Your task to perform on an android device: Do I have any events today? Image 0: 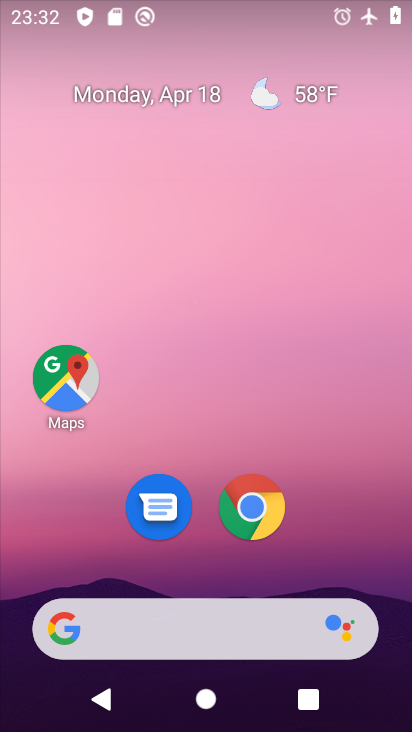
Step 0: click (169, 106)
Your task to perform on an android device: Do I have any events today? Image 1: 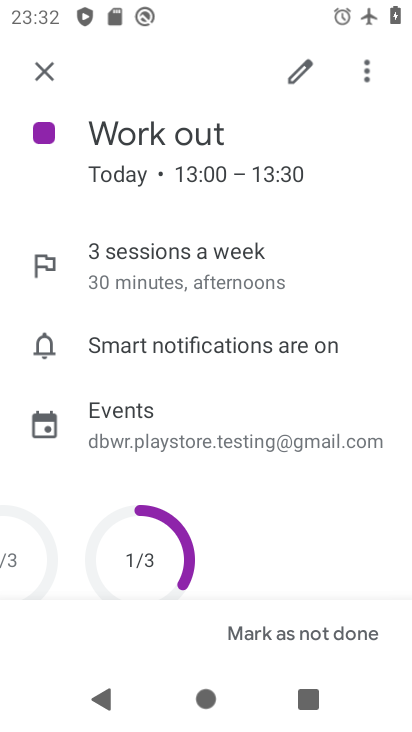
Step 1: click (62, 77)
Your task to perform on an android device: Do I have any events today? Image 2: 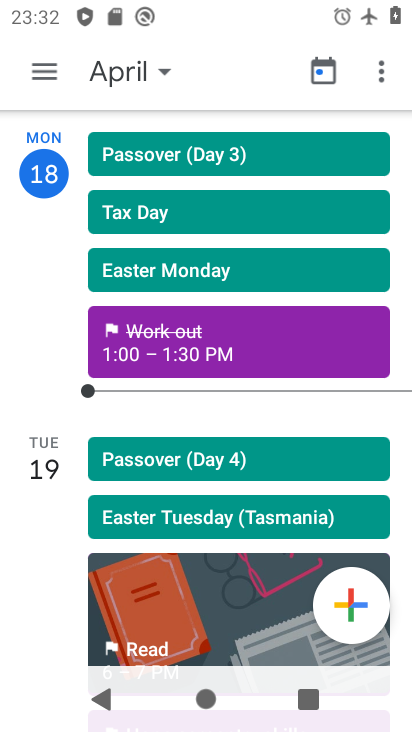
Step 2: click (64, 523)
Your task to perform on an android device: Do I have any events today? Image 3: 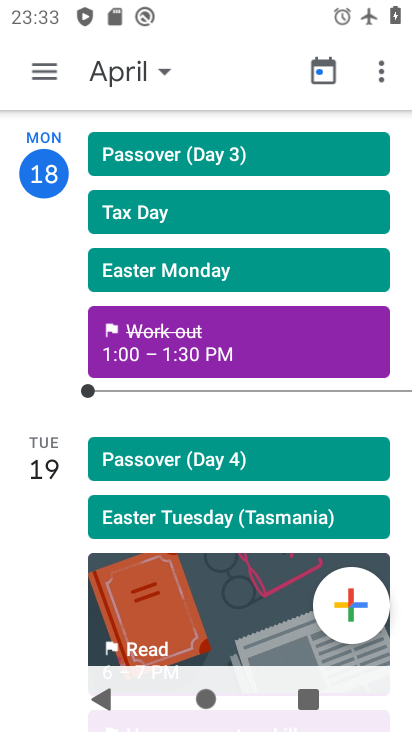
Step 3: drag from (65, 541) to (82, 164)
Your task to perform on an android device: Do I have any events today? Image 4: 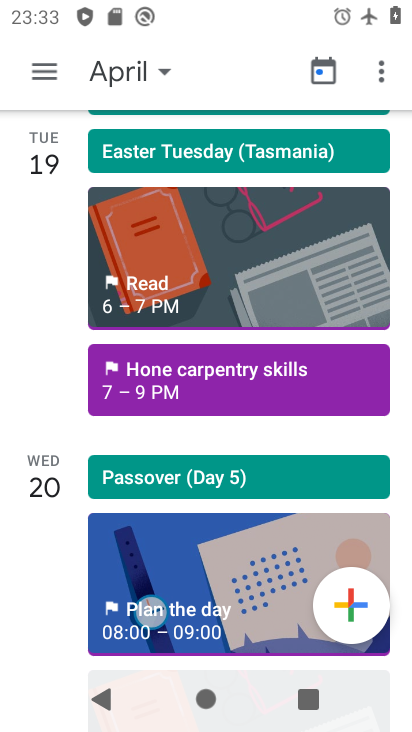
Step 4: click (139, 394)
Your task to perform on an android device: Do I have any events today? Image 5: 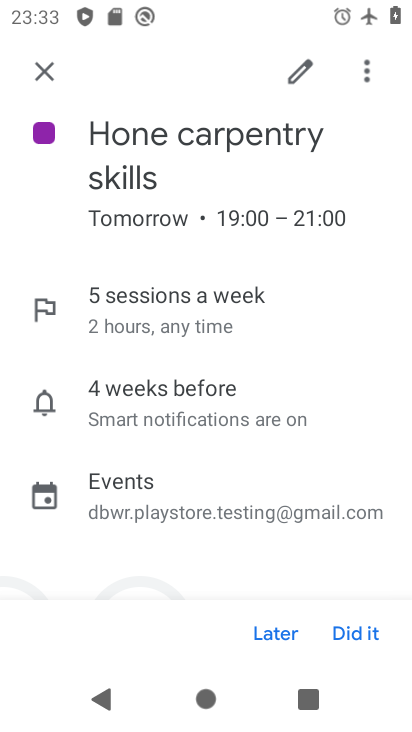
Step 5: task complete